Your task to perform on an android device: delete location history Image 0: 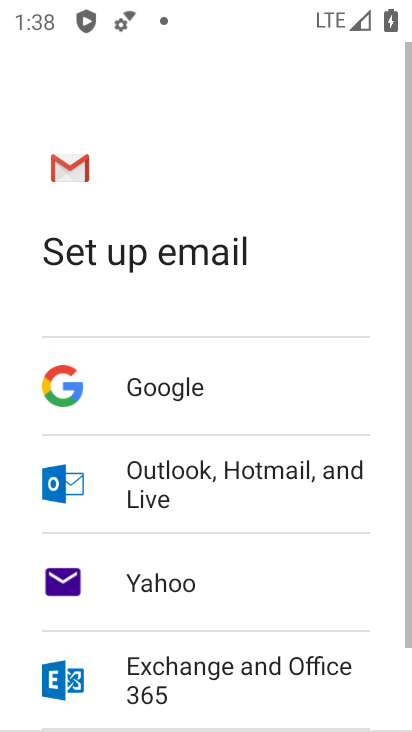
Step 0: press home button
Your task to perform on an android device: delete location history Image 1: 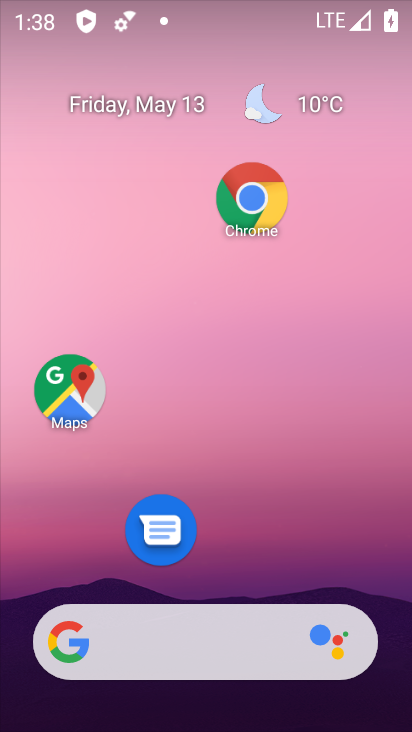
Step 1: drag from (232, 587) to (146, 2)
Your task to perform on an android device: delete location history Image 2: 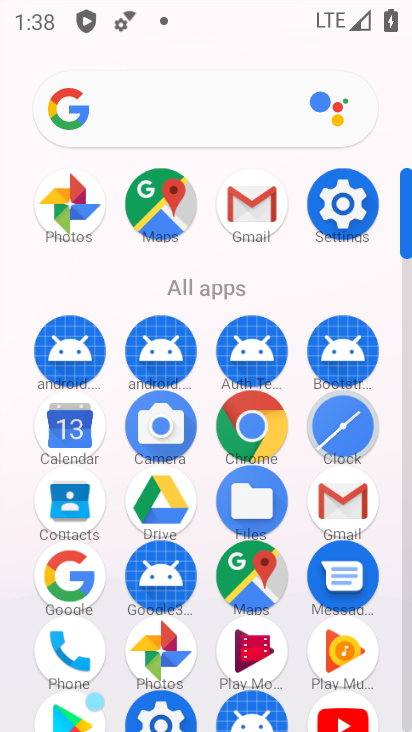
Step 2: click (332, 180)
Your task to perform on an android device: delete location history Image 3: 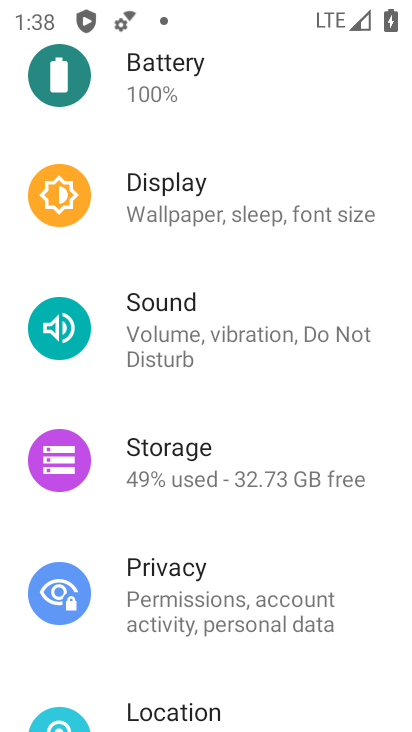
Step 3: press home button
Your task to perform on an android device: delete location history Image 4: 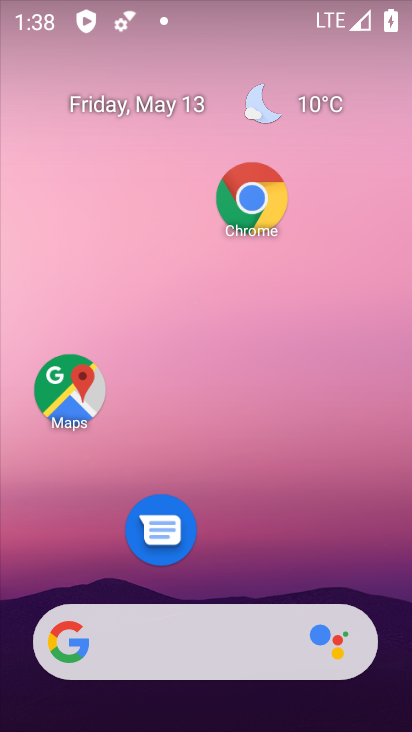
Step 4: drag from (221, 576) to (172, 28)
Your task to perform on an android device: delete location history Image 5: 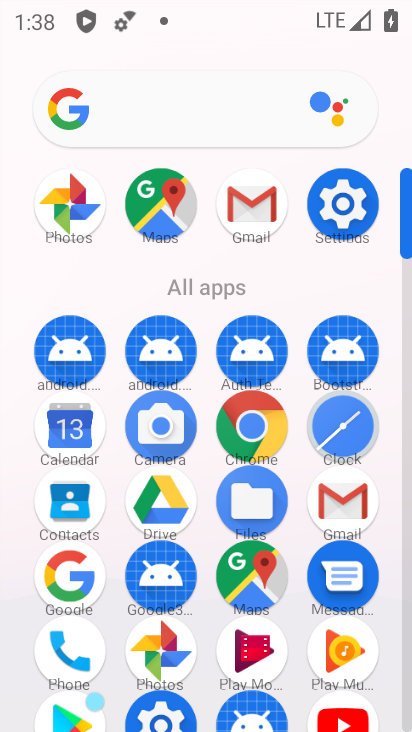
Step 5: click (253, 581)
Your task to perform on an android device: delete location history Image 6: 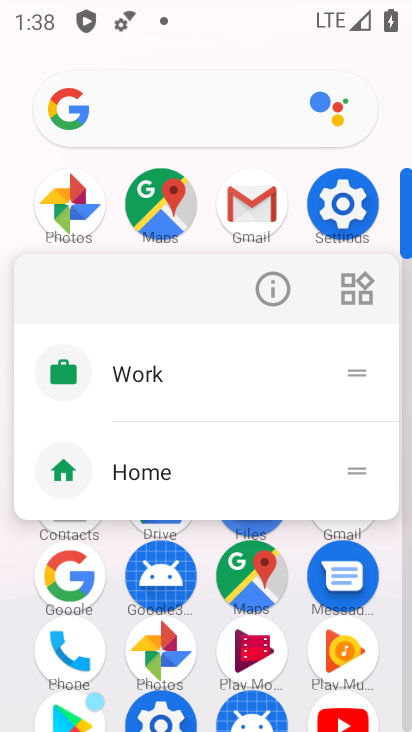
Step 6: click (253, 581)
Your task to perform on an android device: delete location history Image 7: 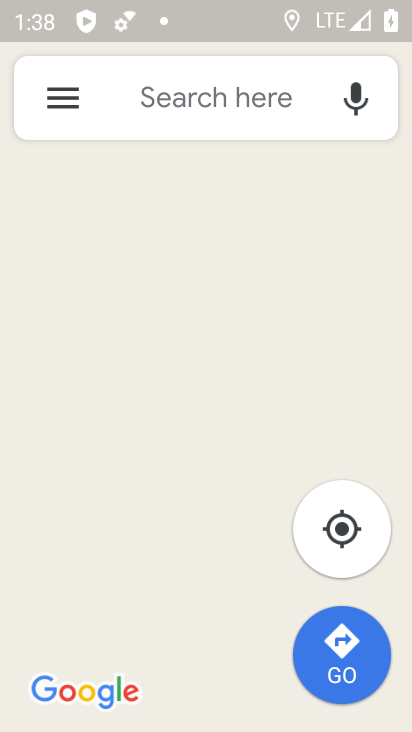
Step 7: click (62, 88)
Your task to perform on an android device: delete location history Image 8: 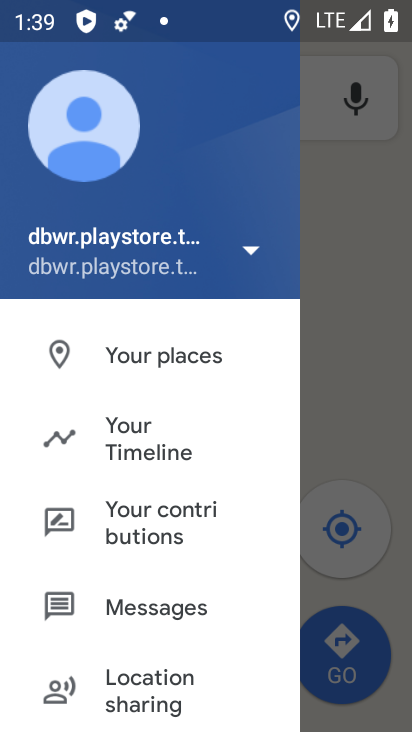
Step 8: drag from (108, 565) to (108, 463)
Your task to perform on an android device: delete location history Image 9: 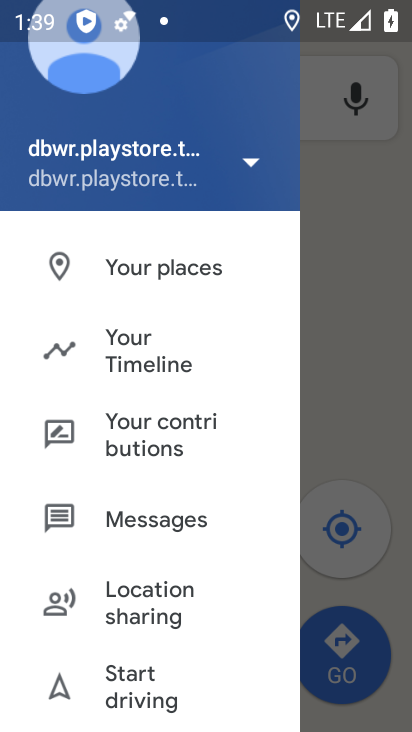
Step 9: click (117, 359)
Your task to perform on an android device: delete location history Image 10: 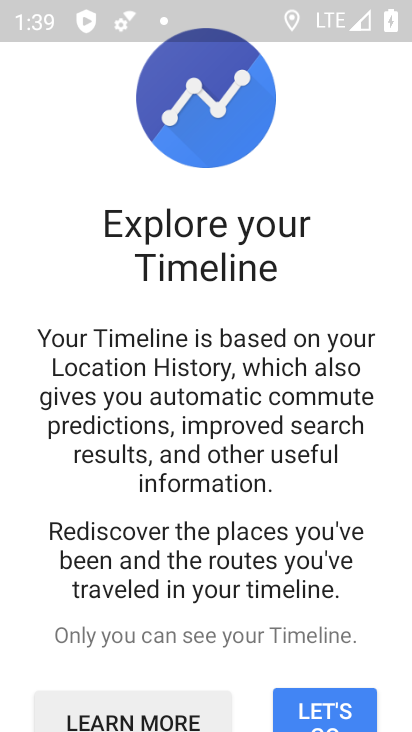
Step 10: drag from (237, 558) to (240, 164)
Your task to perform on an android device: delete location history Image 11: 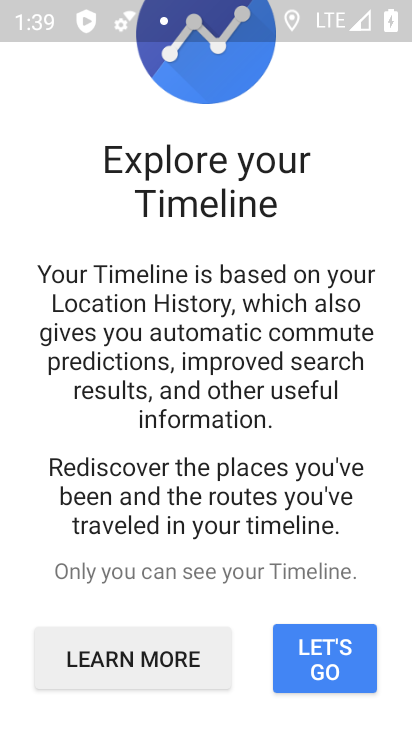
Step 11: click (314, 651)
Your task to perform on an android device: delete location history Image 12: 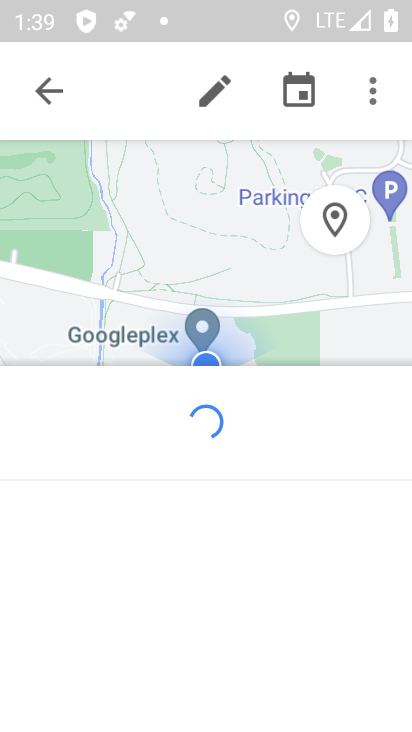
Step 12: click (370, 102)
Your task to perform on an android device: delete location history Image 13: 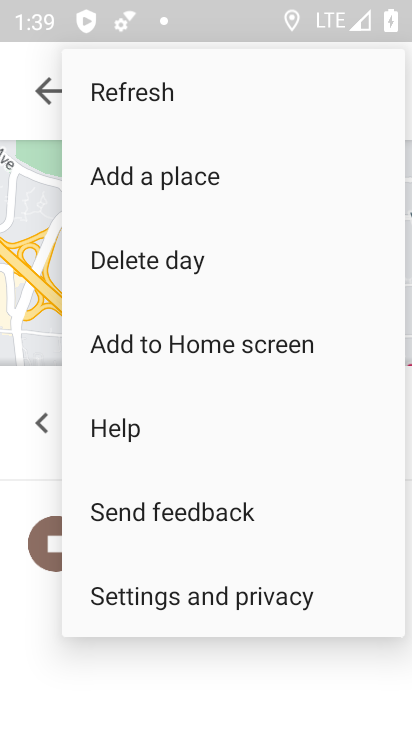
Step 13: click (213, 597)
Your task to perform on an android device: delete location history Image 14: 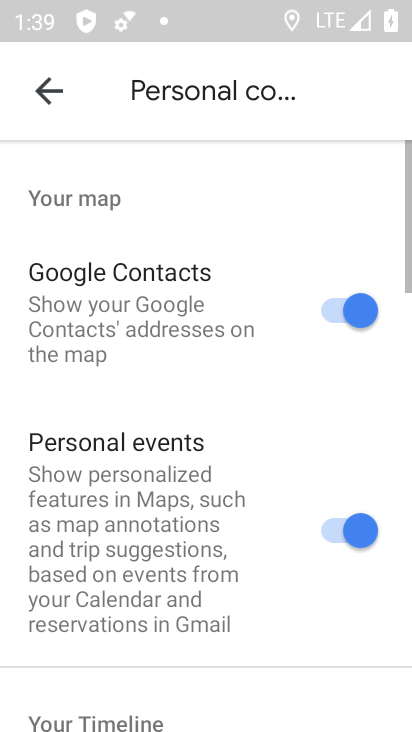
Step 14: drag from (215, 596) to (141, 4)
Your task to perform on an android device: delete location history Image 15: 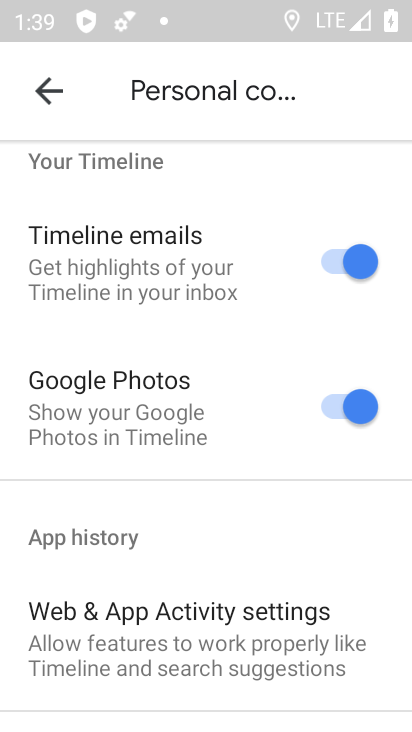
Step 15: drag from (192, 633) to (155, 80)
Your task to perform on an android device: delete location history Image 16: 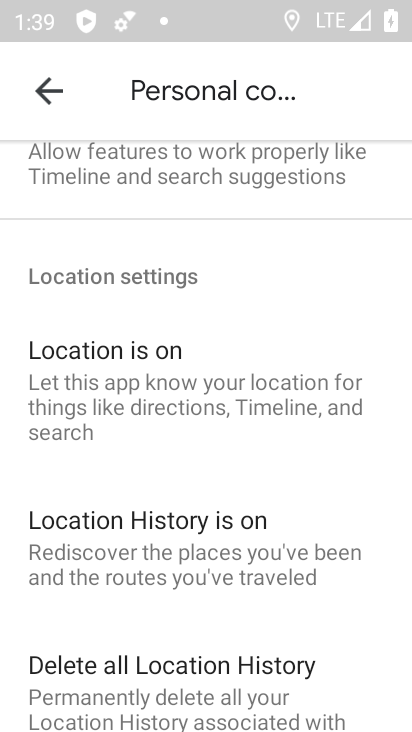
Step 16: click (214, 647)
Your task to perform on an android device: delete location history Image 17: 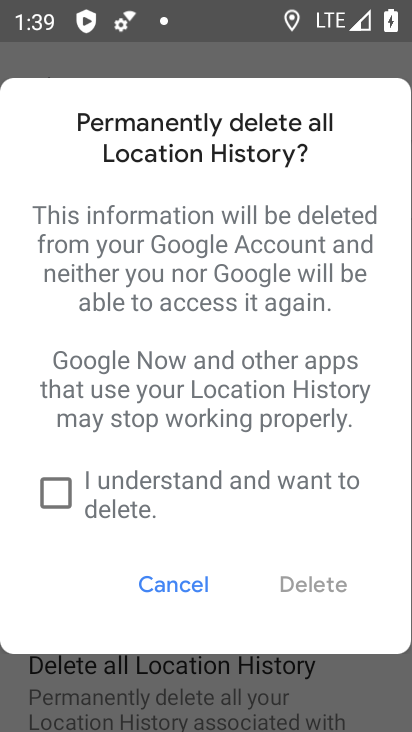
Step 17: click (66, 480)
Your task to perform on an android device: delete location history Image 18: 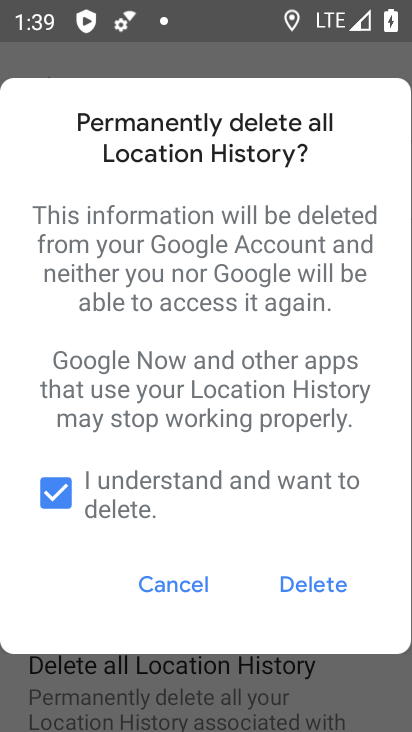
Step 18: click (330, 579)
Your task to perform on an android device: delete location history Image 19: 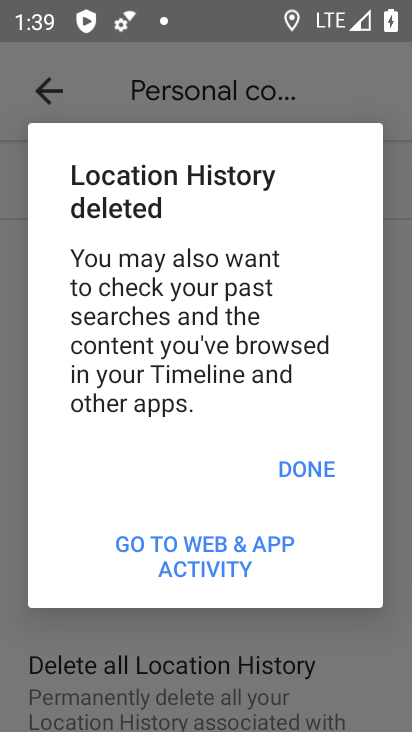
Step 19: task complete